Your task to perform on an android device: Go to notification settings Image 0: 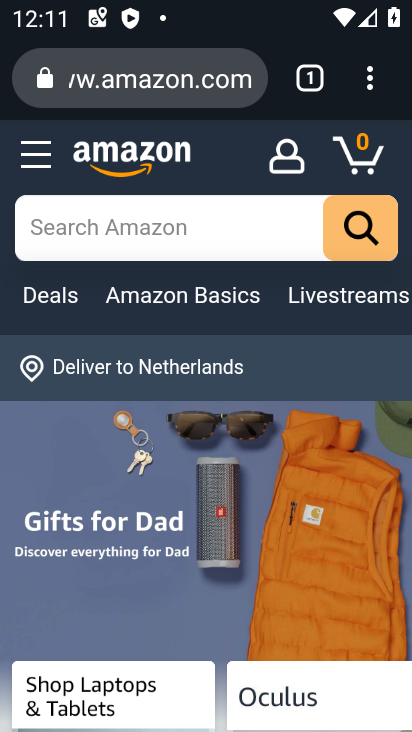
Step 0: press home button
Your task to perform on an android device: Go to notification settings Image 1: 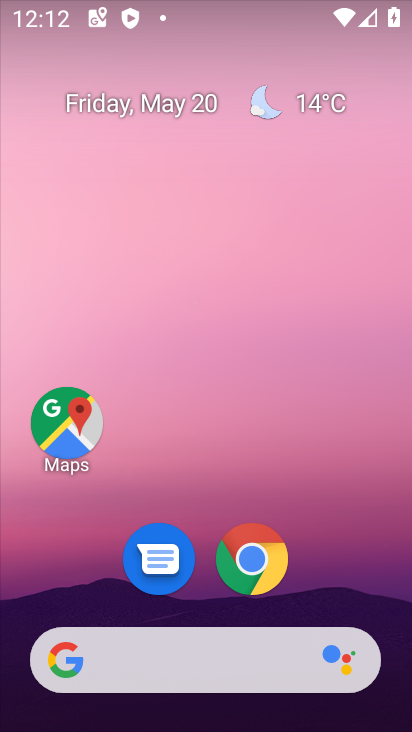
Step 1: drag from (358, 587) to (319, 112)
Your task to perform on an android device: Go to notification settings Image 2: 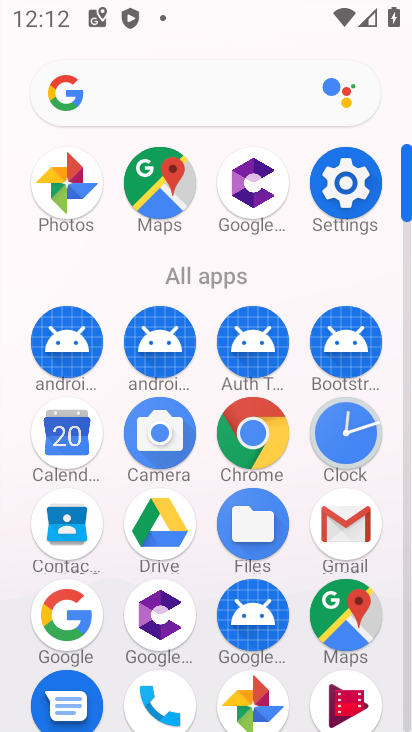
Step 2: click (336, 201)
Your task to perform on an android device: Go to notification settings Image 3: 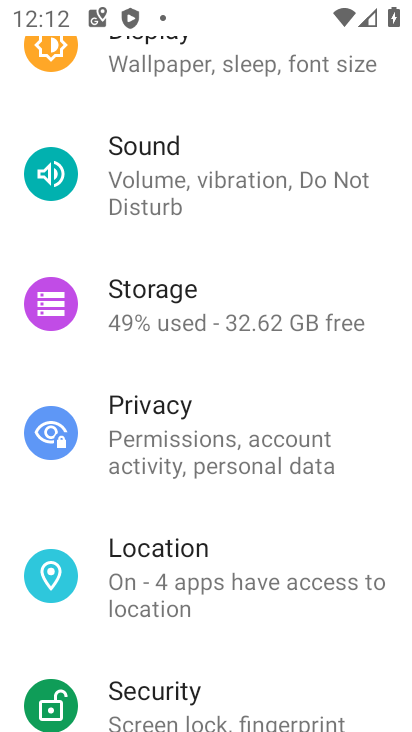
Step 3: drag from (159, 206) to (142, 651)
Your task to perform on an android device: Go to notification settings Image 4: 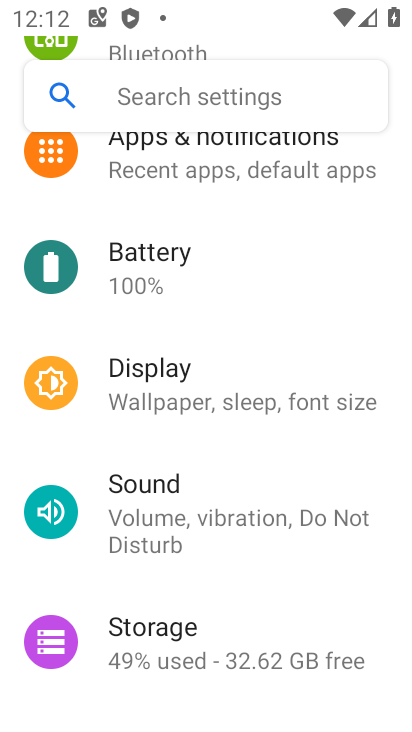
Step 4: click (185, 186)
Your task to perform on an android device: Go to notification settings Image 5: 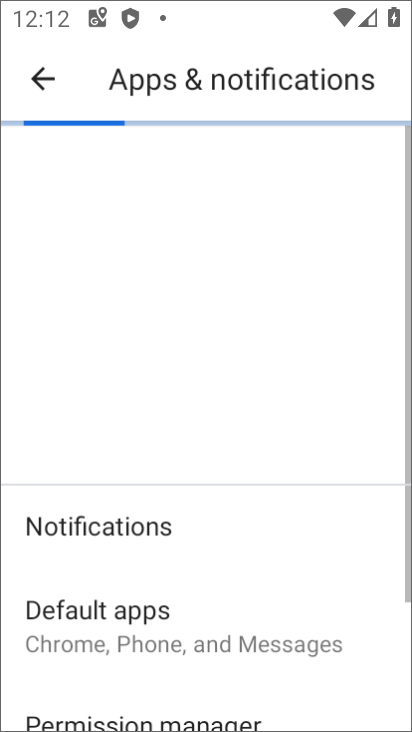
Step 5: task complete